Your task to perform on an android device: Open Google Maps and go to "Timeline" Image 0: 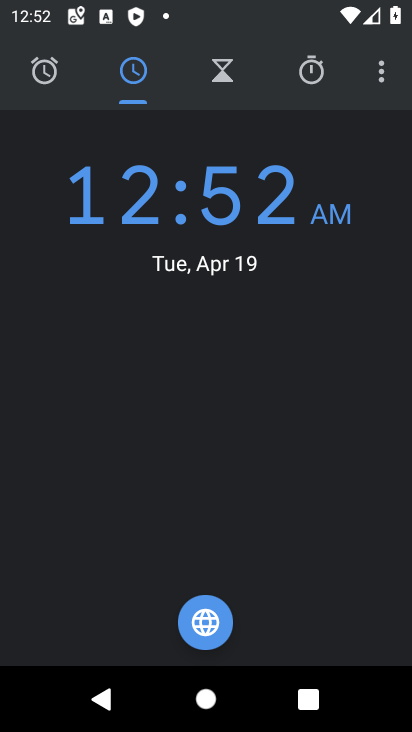
Step 0: press home button
Your task to perform on an android device: Open Google Maps and go to "Timeline" Image 1: 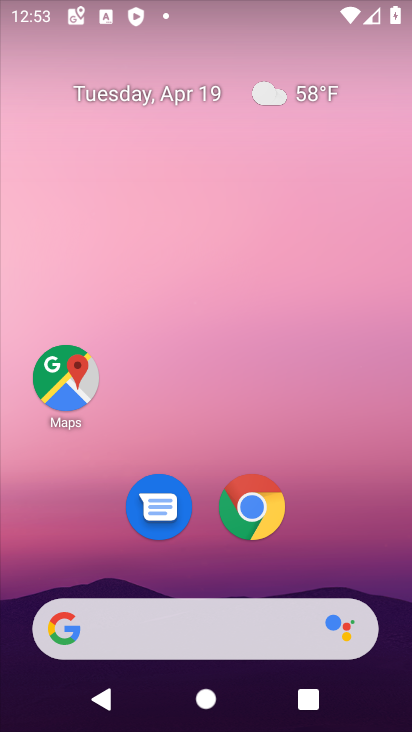
Step 1: drag from (202, 569) to (230, 90)
Your task to perform on an android device: Open Google Maps and go to "Timeline" Image 2: 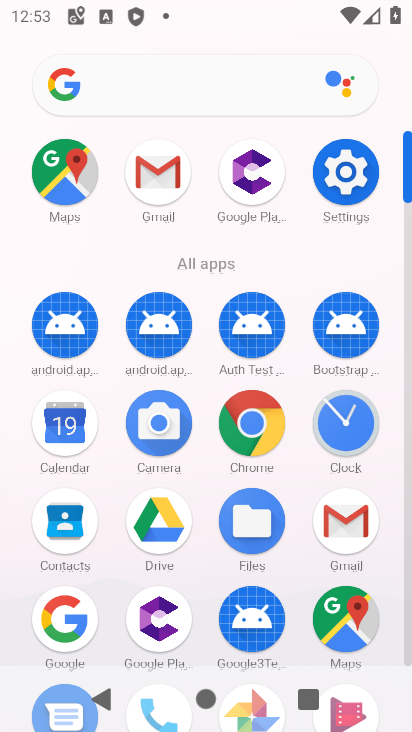
Step 2: click (67, 181)
Your task to perform on an android device: Open Google Maps and go to "Timeline" Image 3: 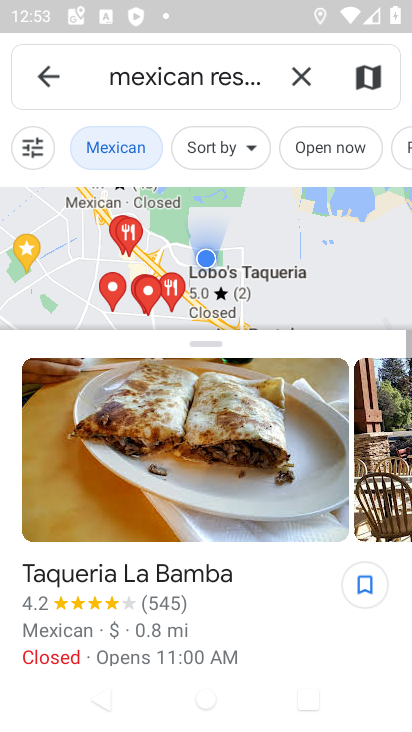
Step 3: click (40, 74)
Your task to perform on an android device: Open Google Maps and go to "Timeline" Image 4: 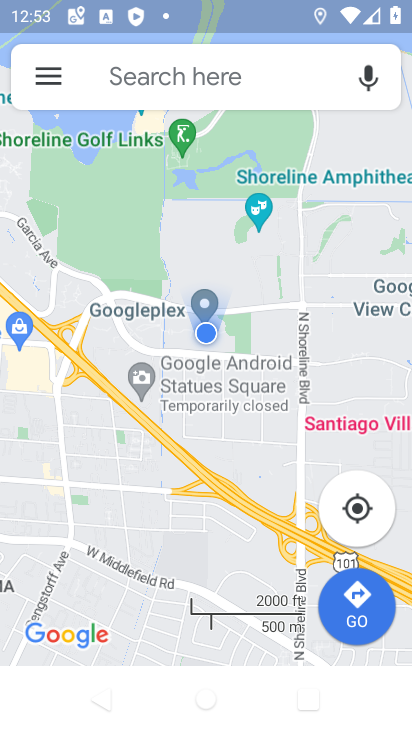
Step 4: click (41, 73)
Your task to perform on an android device: Open Google Maps and go to "Timeline" Image 5: 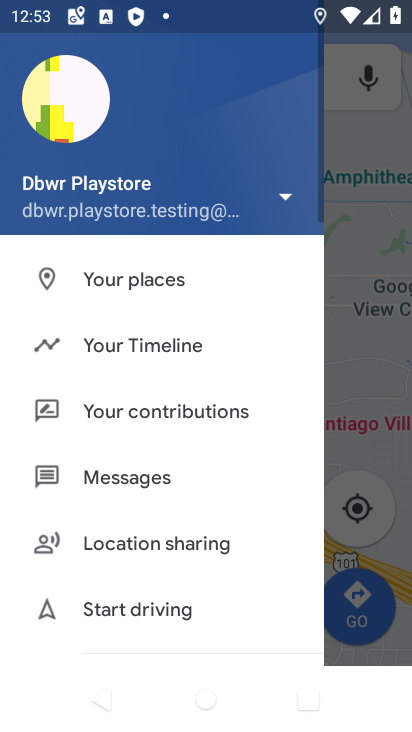
Step 5: click (85, 342)
Your task to perform on an android device: Open Google Maps and go to "Timeline" Image 6: 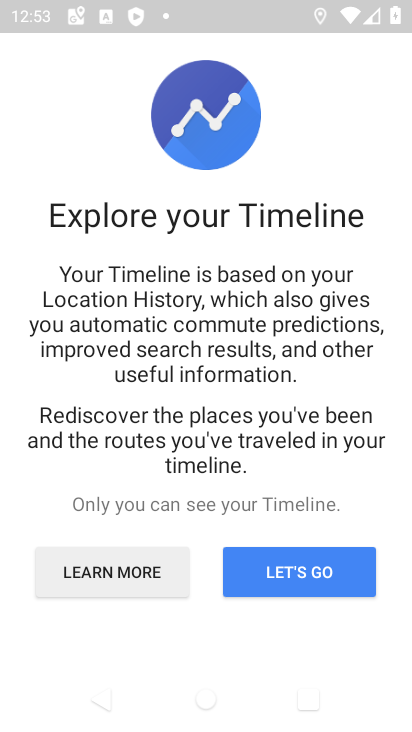
Step 6: click (318, 575)
Your task to perform on an android device: Open Google Maps and go to "Timeline" Image 7: 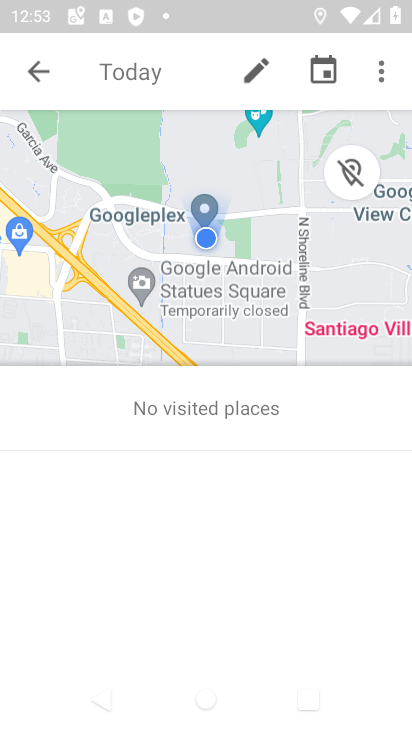
Step 7: task complete